Your task to perform on an android device: Open location settings Image 0: 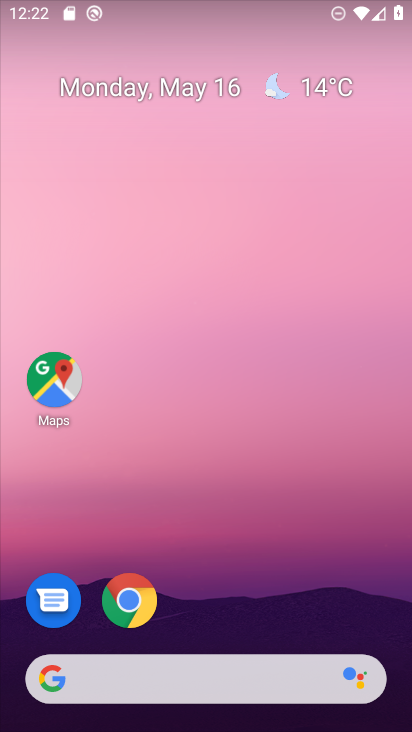
Step 0: drag from (229, 634) to (243, 88)
Your task to perform on an android device: Open location settings Image 1: 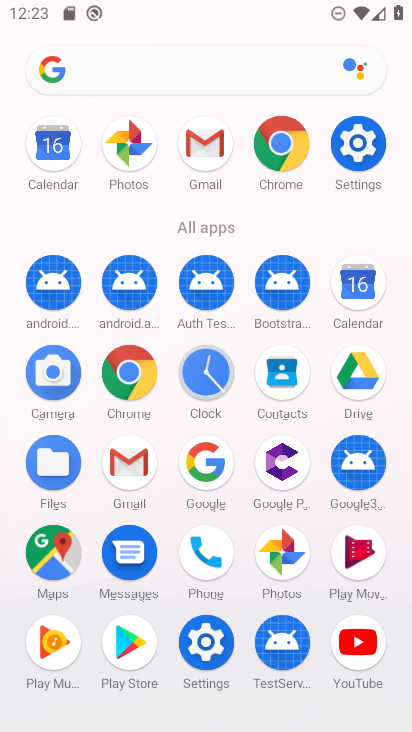
Step 1: click (356, 145)
Your task to perform on an android device: Open location settings Image 2: 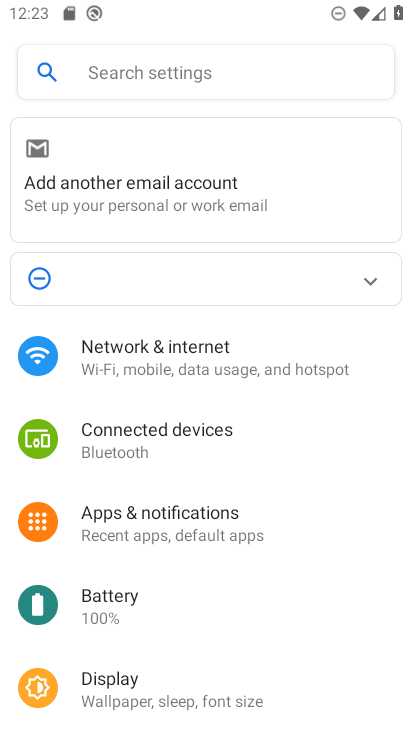
Step 2: drag from (174, 677) to (207, 235)
Your task to perform on an android device: Open location settings Image 3: 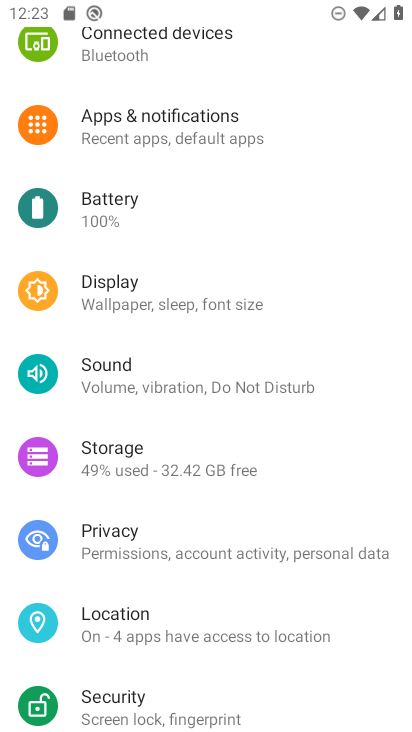
Step 3: click (153, 612)
Your task to perform on an android device: Open location settings Image 4: 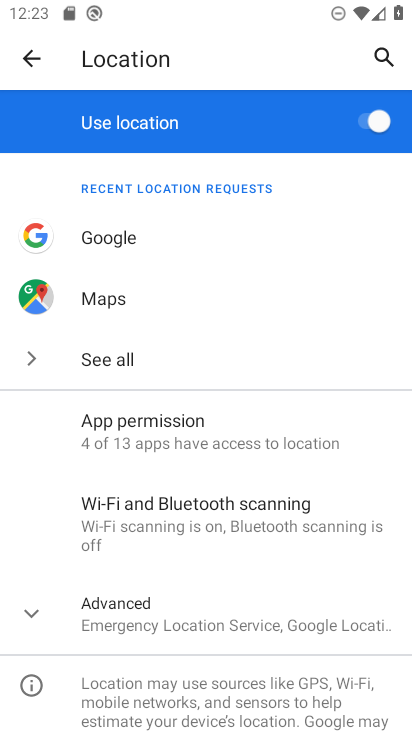
Step 4: click (30, 609)
Your task to perform on an android device: Open location settings Image 5: 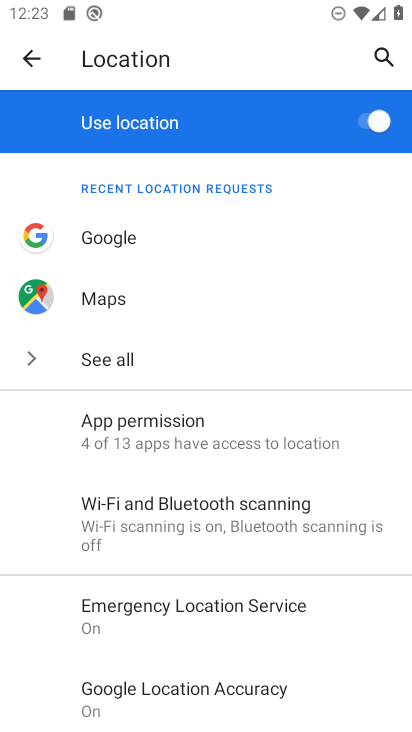
Step 5: task complete